Your task to perform on an android device: check storage Image 0: 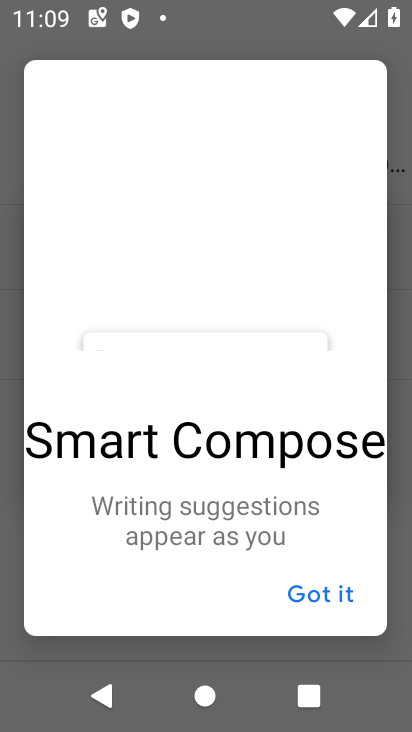
Step 0: press home button
Your task to perform on an android device: check storage Image 1: 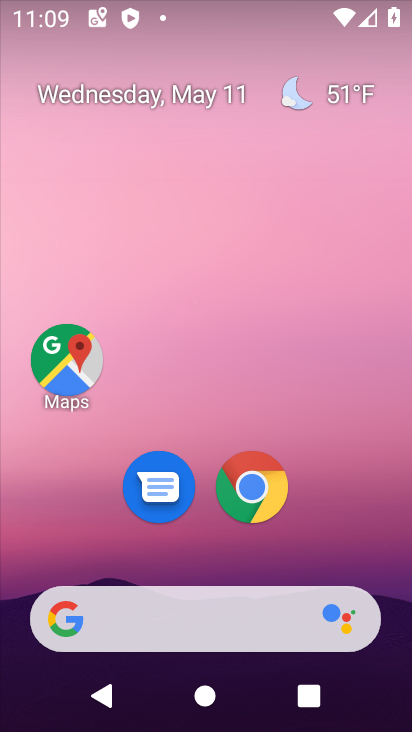
Step 1: drag from (360, 533) to (322, 138)
Your task to perform on an android device: check storage Image 2: 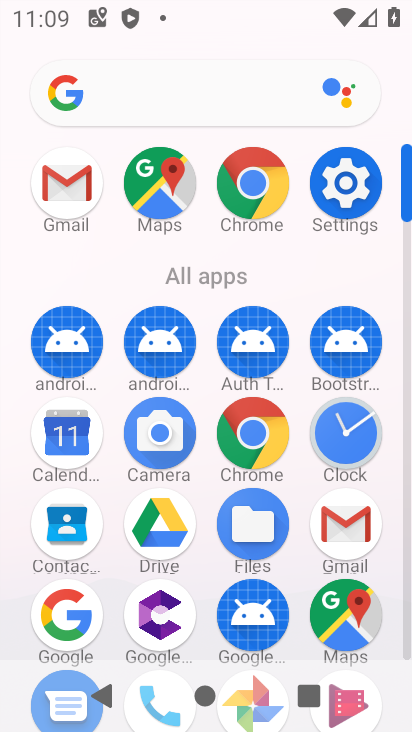
Step 2: click (349, 219)
Your task to perform on an android device: check storage Image 3: 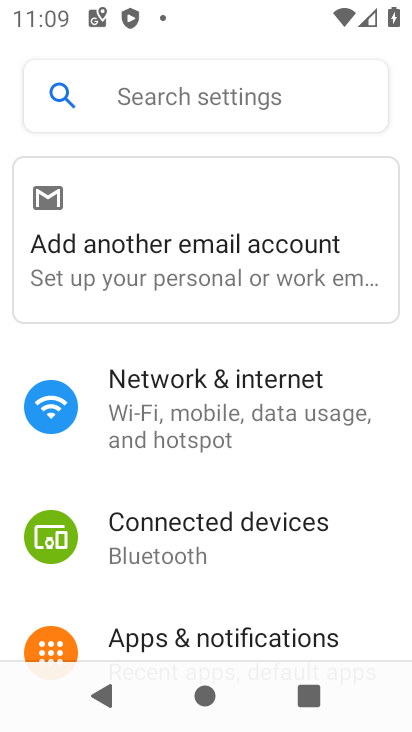
Step 3: drag from (243, 367) to (220, 233)
Your task to perform on an android device: check storage Image 4: 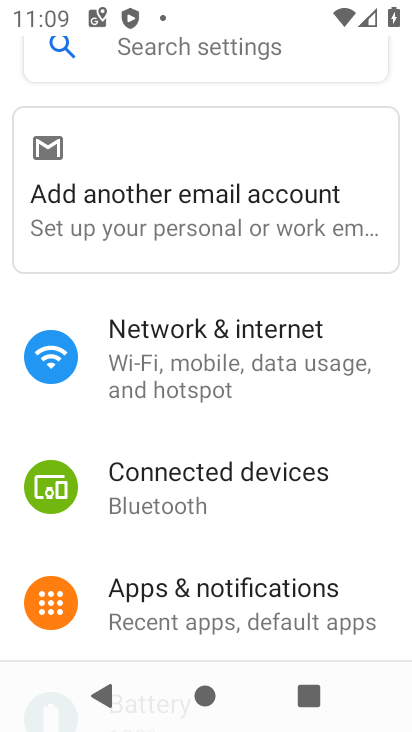
Step 4: drag from (302, 509) to (230, 106)
Your task to perform on an android device: check storage Image 5: 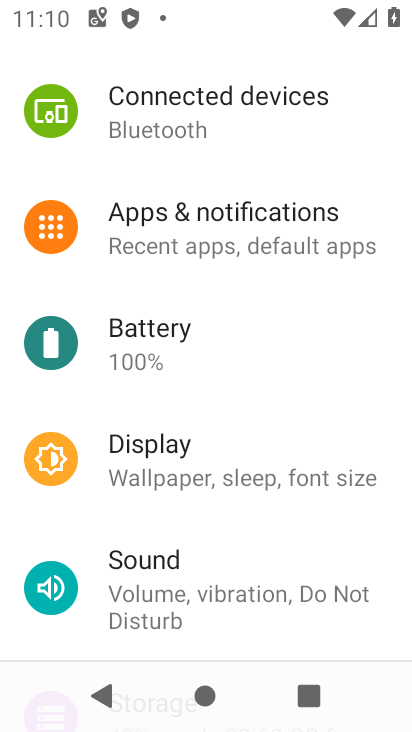
Step 5: drag from (269, 550) to (221, 250)
Your task to perform on an android device: check storage Image 6: 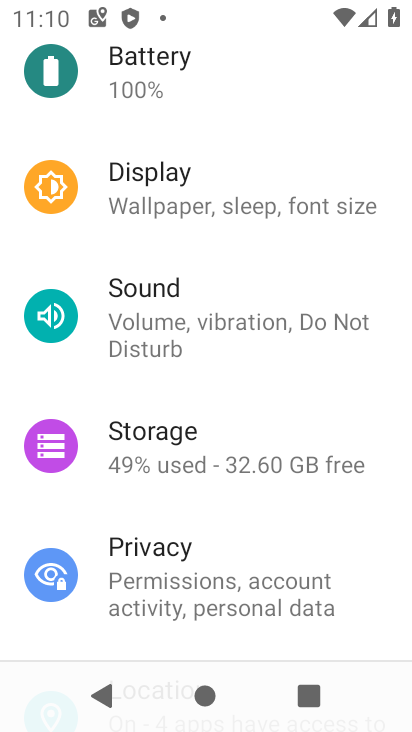
Step 6: drag from (286, 485) to (235, 305)
Your task to perform on an android device: check storage Image 7: 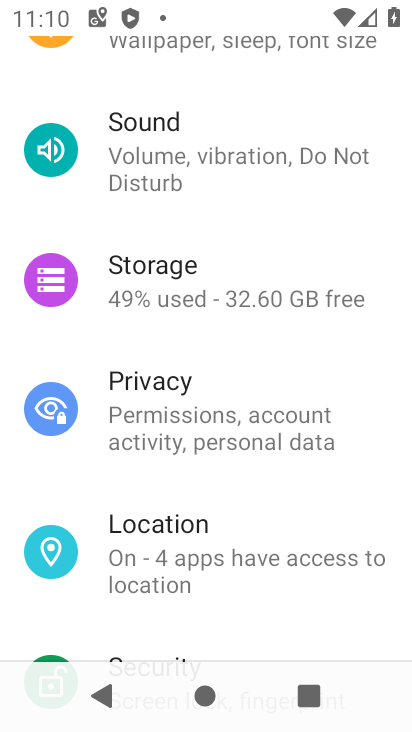
Step 7: click (204, 283)
Your task to perform on an android device: check storage Image 8: 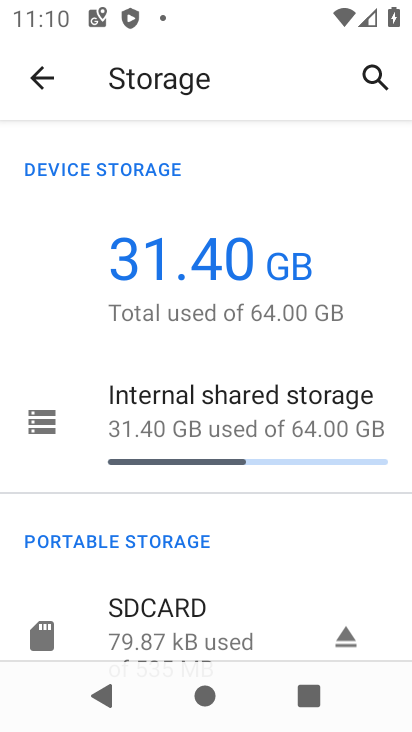
Step 8: task complete